Your task to perform on an android device: see tabs open on other devices in the chrome app Image 0: 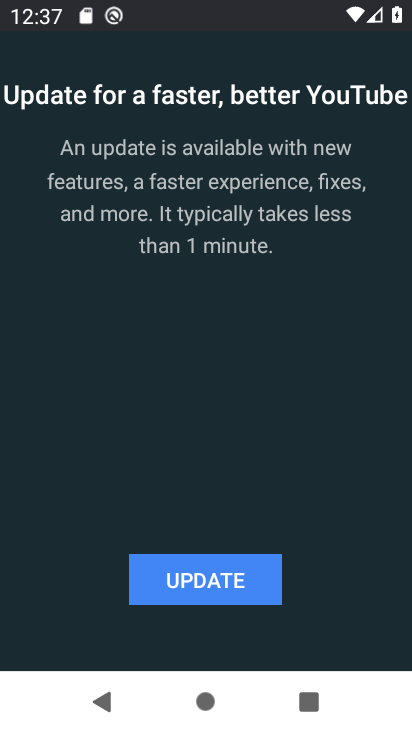
Step 0: press home button
Your task to perform on an android device: see tabs open on other devices in the chrome app Image 1: 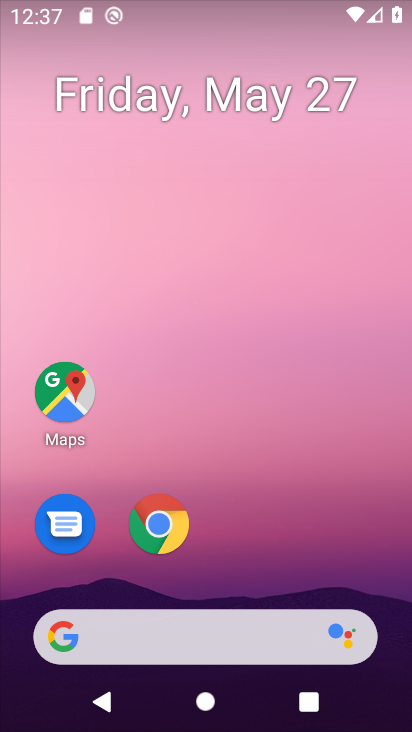
Step 1: drag from (261, 569) to (258, 494)
Your task to perform on an android device: see tabs open on other devices in the chrome app Image 2: 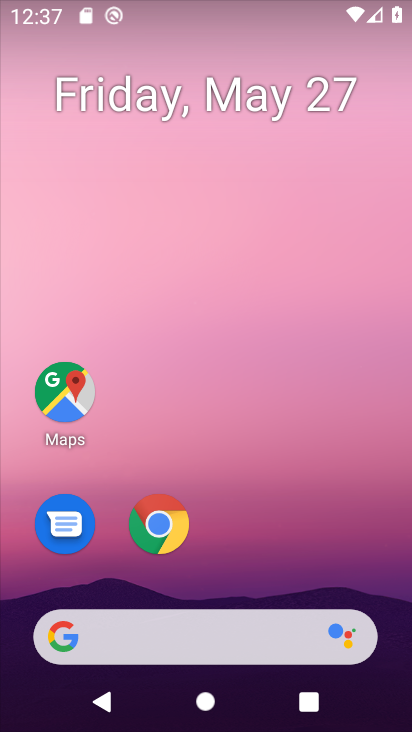
Step 2: click (163, 519)
Your task to perform on an android device: see tabs open on other devices in the chrome app Image 3: 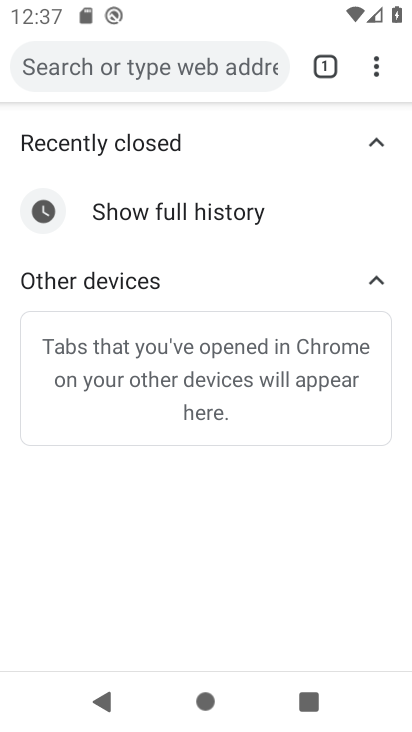
Step 3: click (375, 66)
Your task to perform on an android device: see tabs open on other devices in the chrome app Image 4: 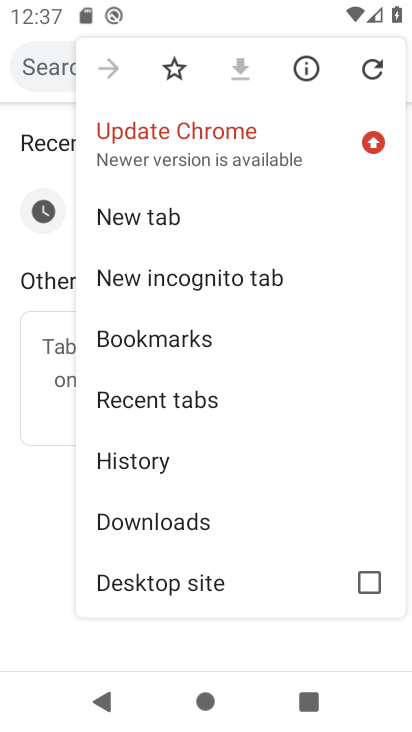
Step 4: click (192, 397)
Your task to perform on an android device: see tabs open on other devices in the chrome app Image 5: 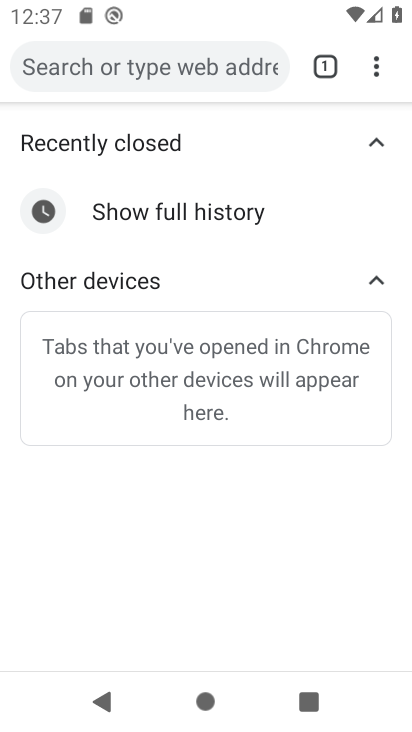
Step 5: task complete